Your task to perform on an android device: Go to Yahoo.com Image 0: 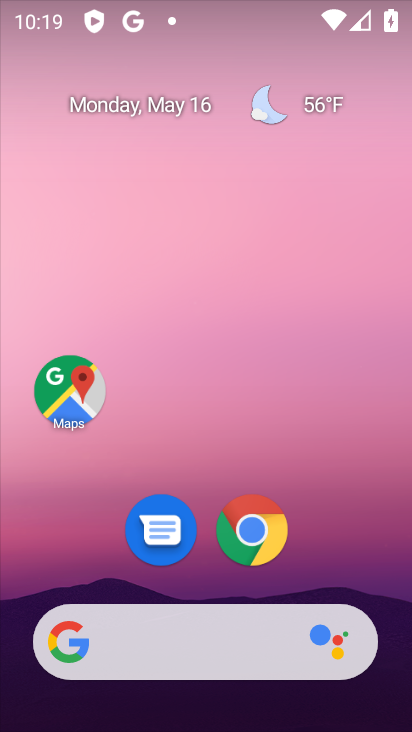
Step 0: drag from (388, 551) to (400, 163)
Your task to perform on an android device: Go to Yahoo.com Image 1: 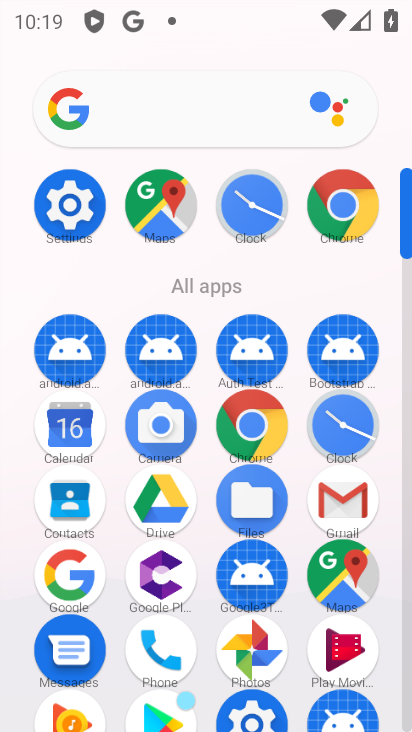
Step 1: click (266, 430)
Your task to perform on an android device: Go to Yahoo.com Image 2: 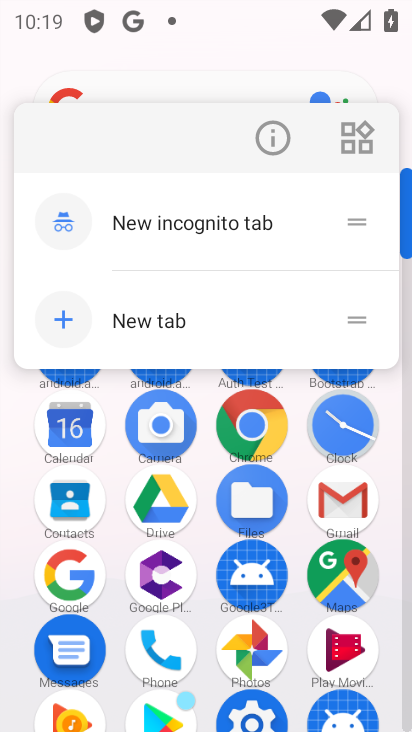
Step 2: click (265, 439)
Your task to perform on an android device: Go to Yahoo.com Image 3: 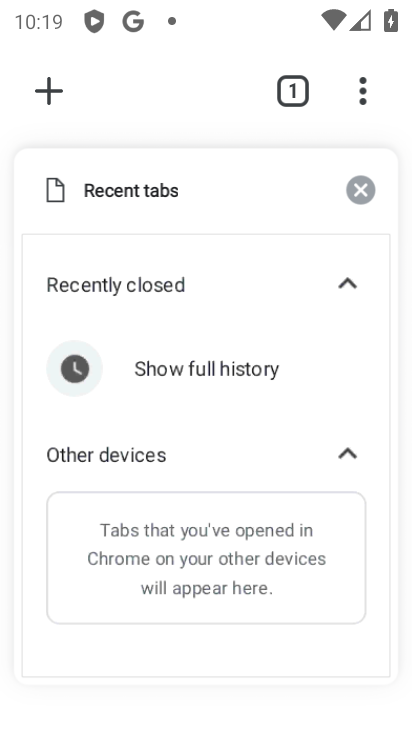
Step 3: press back button
Your task to perform on an android device: Go to Yahoo.com Image 4: 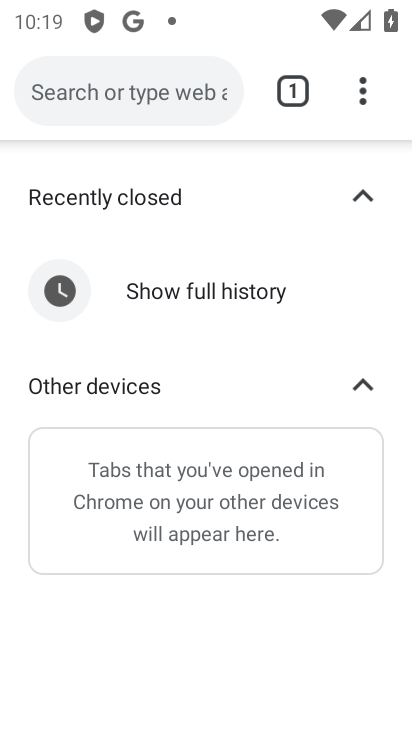
Step 4: press back button
Your task to perform on an android device: Go to Yahoo.com Image 5: 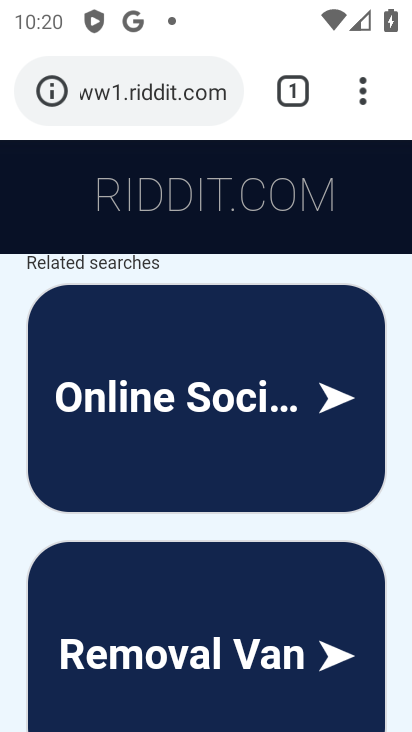
Step 5: press back button
Your task to perform on an android device: Go to Yahoo.com Image 6: 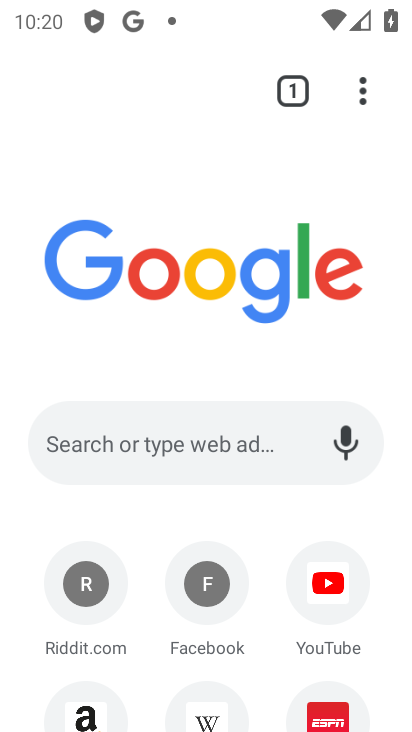
Step 6: drag from (257, 679) to (267, 444)
Your task to perform on an android device: Go to Yahoo.com Image 7: 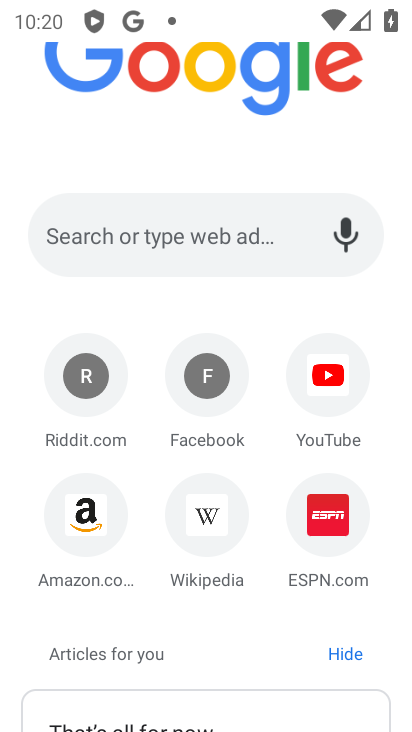
Step 7: drag from (257, 647) to (246, 475)
Your task to perform on an android device: Go to Yahoo.com Image 8: 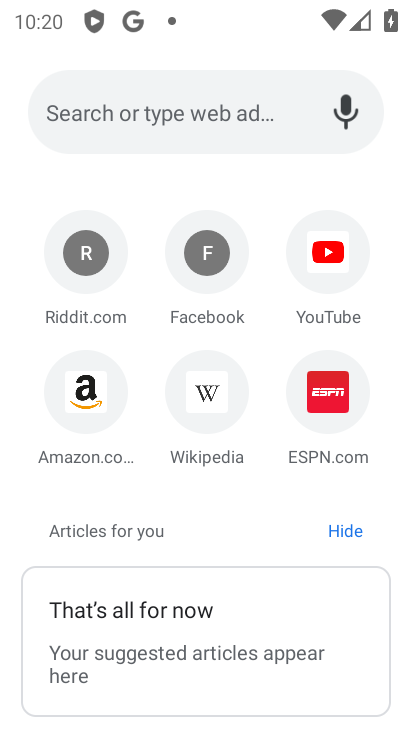
Step 8: click (176, 126)
Your task to perform on an android device: Go to Yahoo.com Image 9: 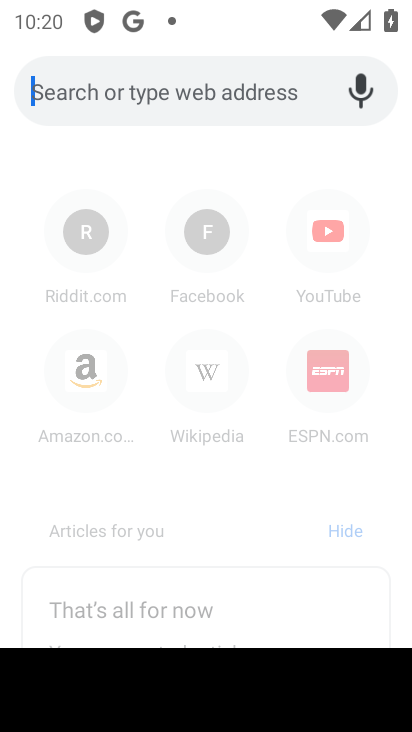
Step 9: type "yahoo"
Your task to perform on an android device: Go to Yahoo.com Image 10: 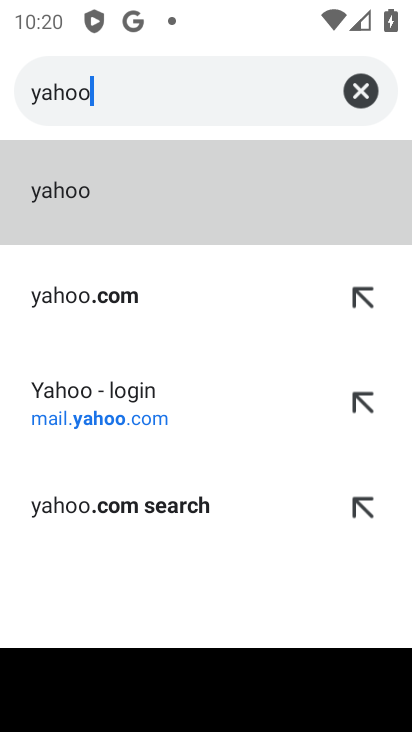
Step 10: click (144, 298)
Your task to perform on an android device: Go to Yahoo.com Image 11: 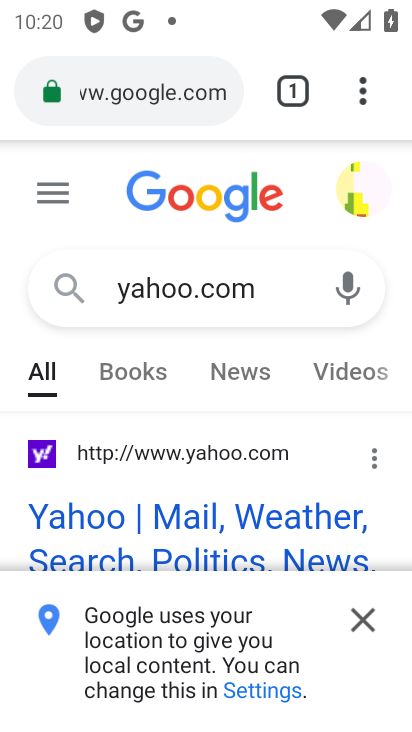
Step 11: task complete